Your task to perform on an android device: toggle javascript in the chrome app Image 0: 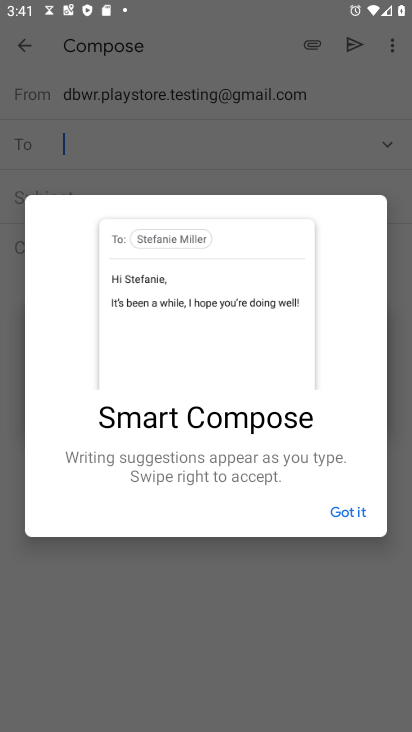
Step 0: press home button
Your task to perform on an android device: toggle javascript in the chrome app Image 1: 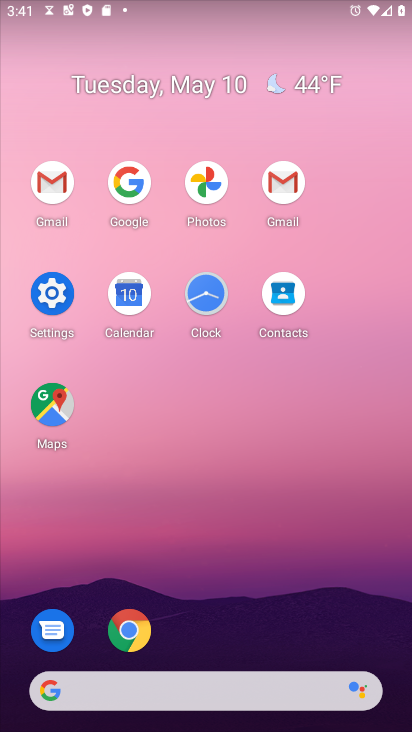
Step 1: click (137, 632)
Your task to perform on an android device: toggle javascript in the chrome app Image 2: 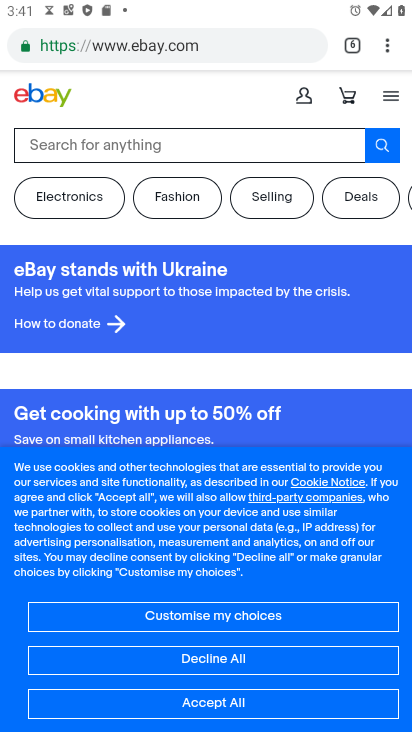
Step 2: click (389, 43)
Your task to perform on an android device: toggle javascript in the chrome app Image 3: 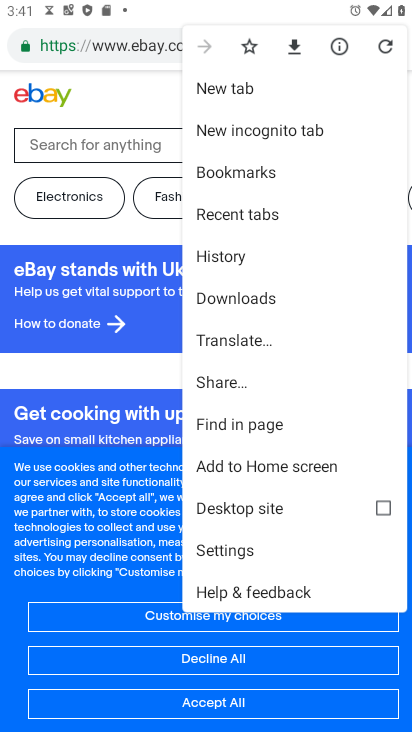
Step 3: click (223, 549)
Your task to perform on an android device: toggle javascript in the chrome app Image 4: 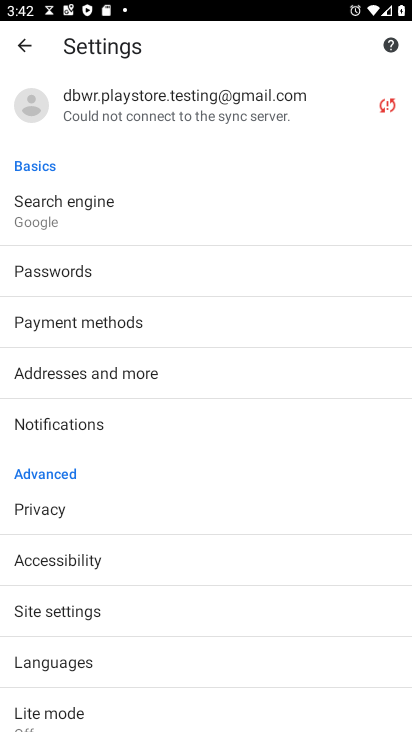
Step 4: click (93, 612)
Your task to perform on an android device: toggle javascript in the chrome app Image 5: 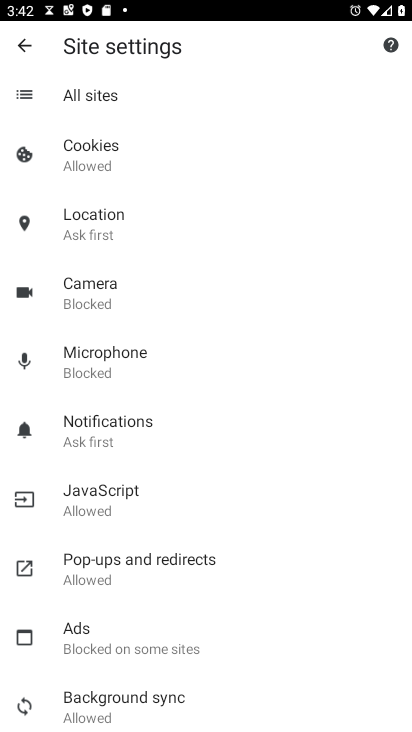
Step 5: click (138, 502)
Your task to perform on an android device: toggle javascript in the chrome app Image 6: 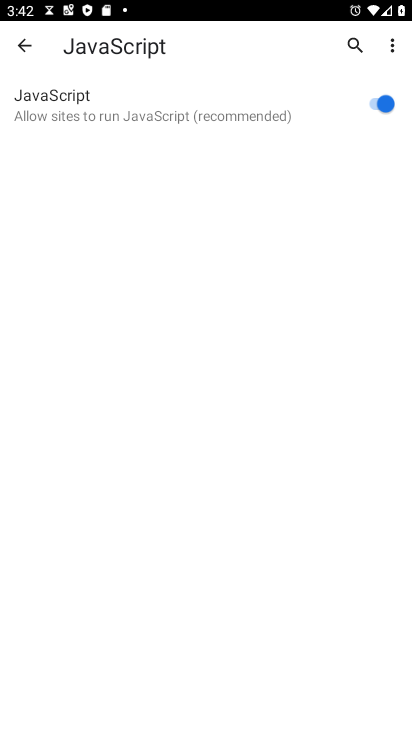
Step 6: click (364, 98)
Your task to perform on an android device: toggle javascript in the chrome app Image 7: 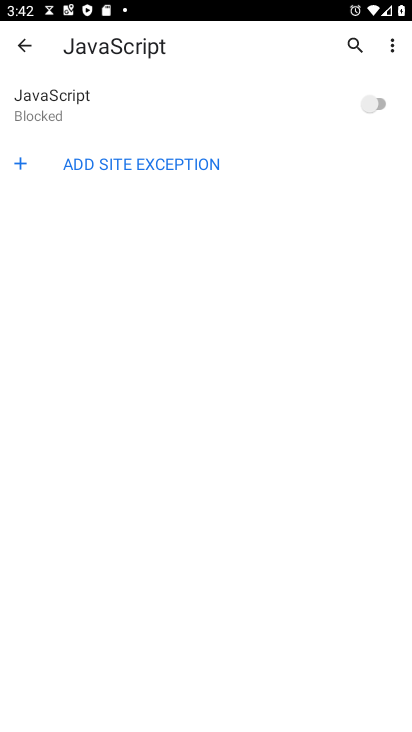
Step 7: task complete